Your task to perform on an android device: open a bookmark in the chrome app Image 0: 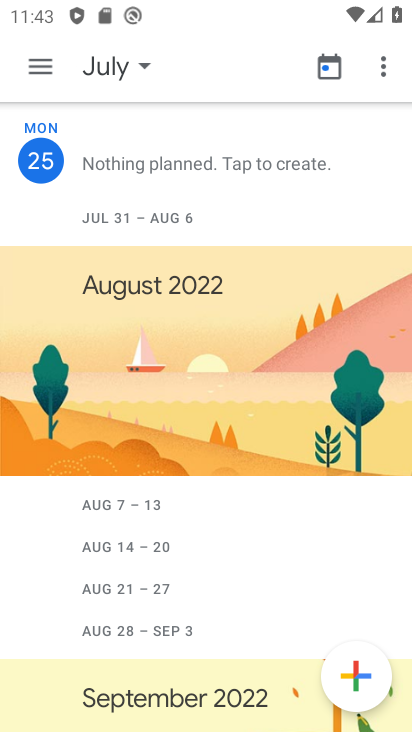
Step 0: press home button
Your task to perform on an android device: open a bookmark in the chrome app Image 1: 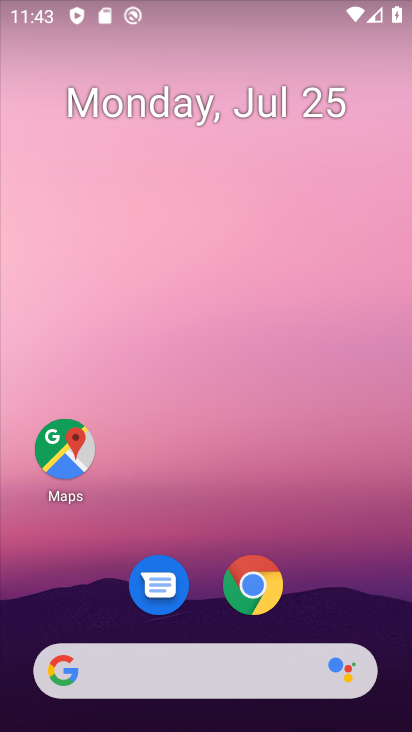
Step 1: click (269, 594)
Your task to perform on an android device: open a bookmark in the chrome app Image 2: 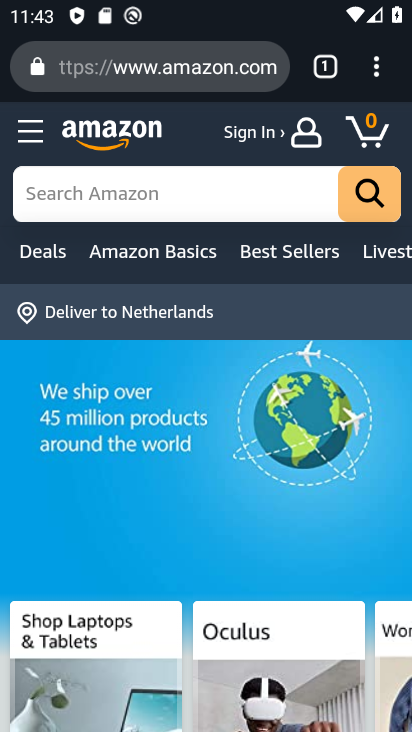
Step 2: click (374, 69)
Your task to perform on an android device: open a bookmark in the chrome app Image 3: 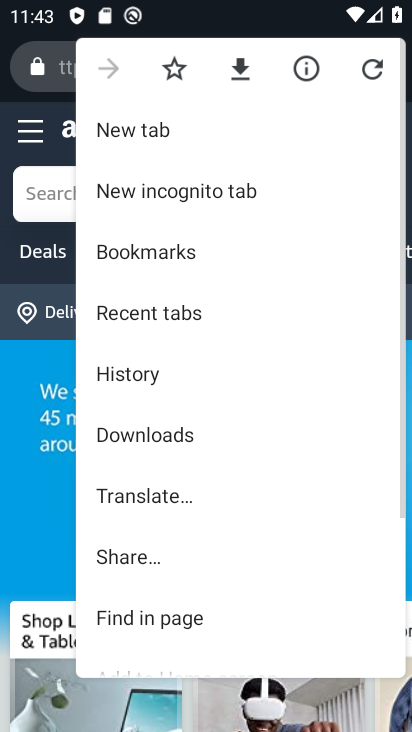
Step 3: click (177, 252)
Your task to perform on an android device: open a bookmark in the chrome app Image 4: 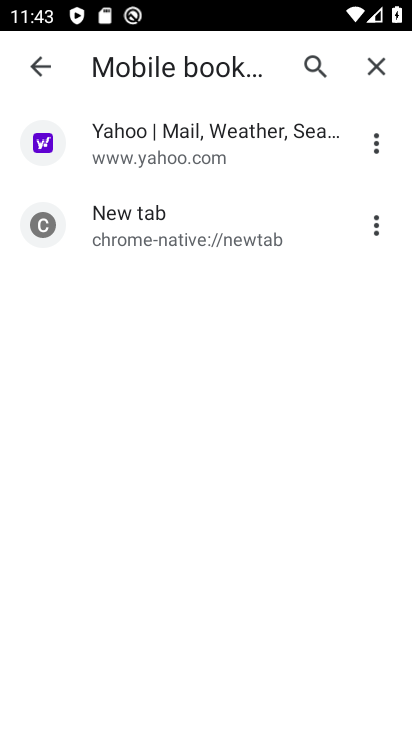
Step 4: click (214, 144)
Your task to perform on an android device: open a bookmark in the chrome app Image 5: 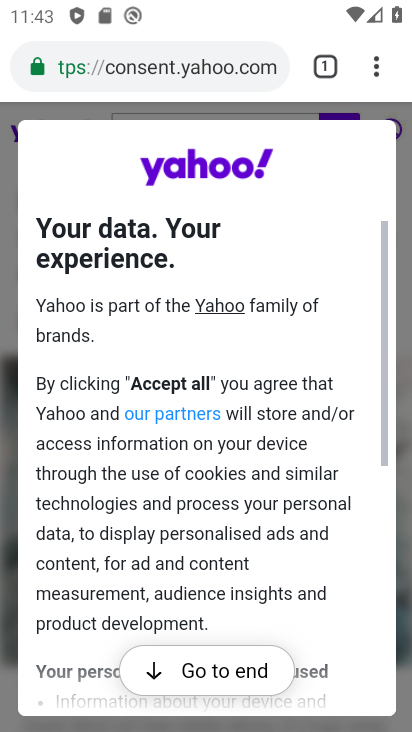
Step 5: click (251, 667)
Your task to perform on an android device: open a bookmark in the chrome app Image 6: 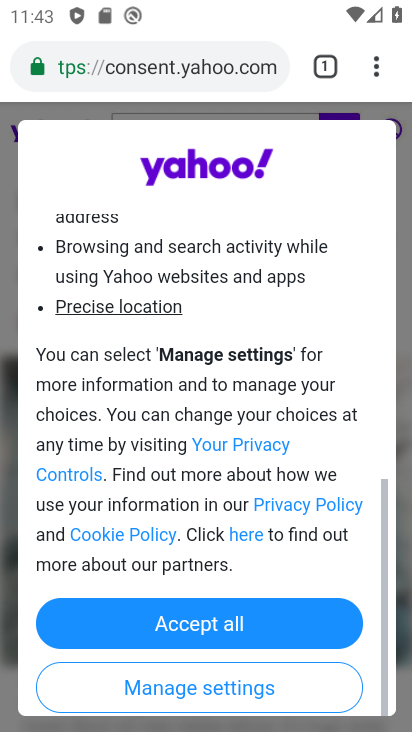
Step 6: click (250, 633)
Your task to perform on an android device: open a bookmark in the chrome app Image 7: 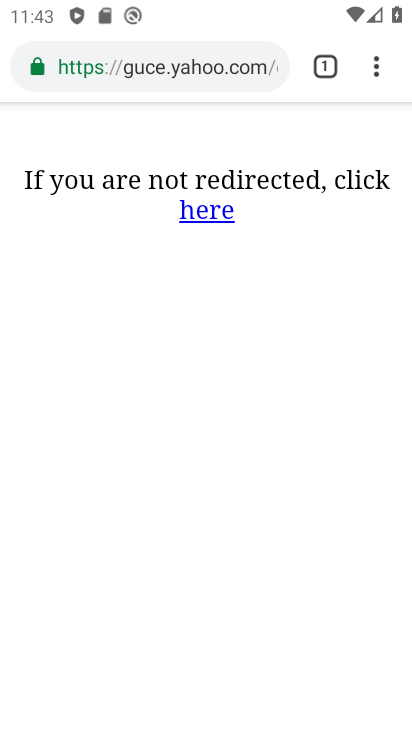
Step 7: click (224, 213)
Your task to perform on an android device: open a bookmark in the chrome app Image 8: 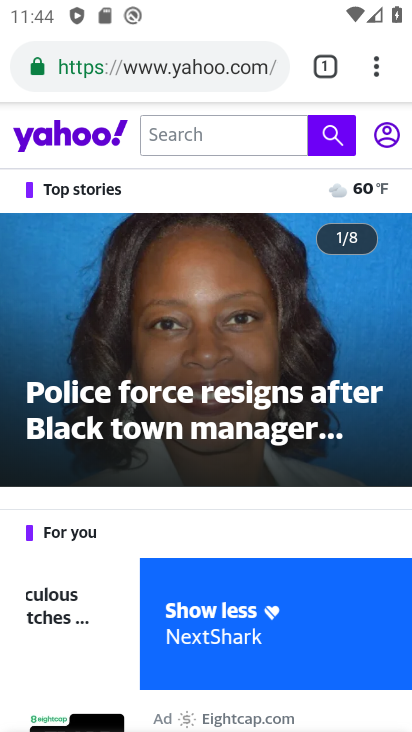
Step 8: task complete